Your task to perform on an android device: open app "Upside-Cash back on gas & food" (install if not already installed), go to login, and select forgot password Image 0: 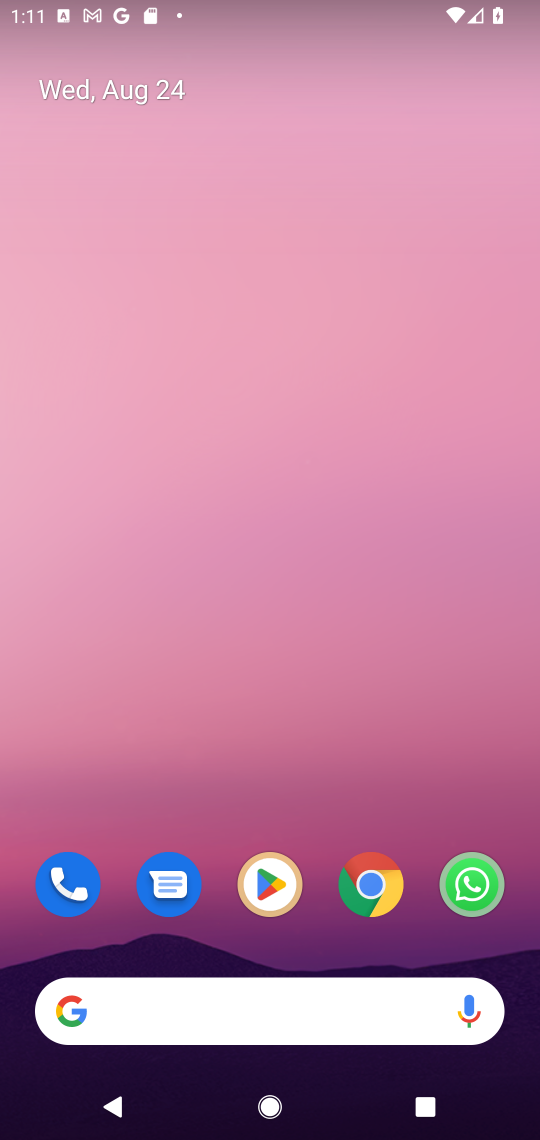
Step 0: drag from (258, 1025) to (252, 321)
Your task to perform on an android device: open app "Upside-Cash back on gas & food" (install if not already installed), go to login, and select forgot password Image 1: 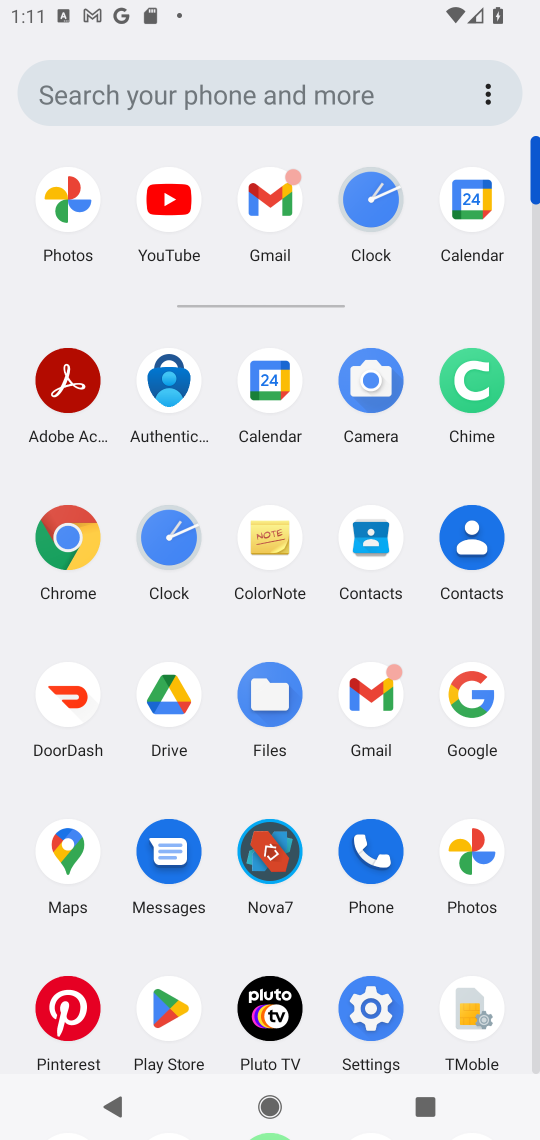
Step 1: click (172, 1004)
Your task to perform on an android device: open app "Upside-Cash back on gas & food" (install if not already installed), go to login, and select forgot password Image 2: 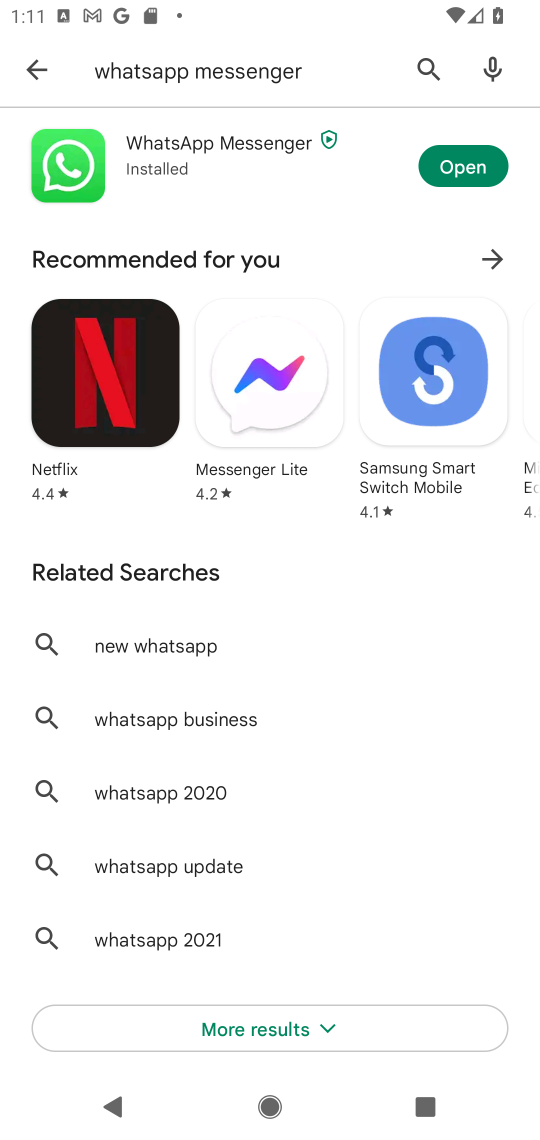
Step 2: press back button
Your task to perform on an android device: open app "Upside-Cash back on gas & food" (install if not already installed), go to login, and select forgot password Image 3: 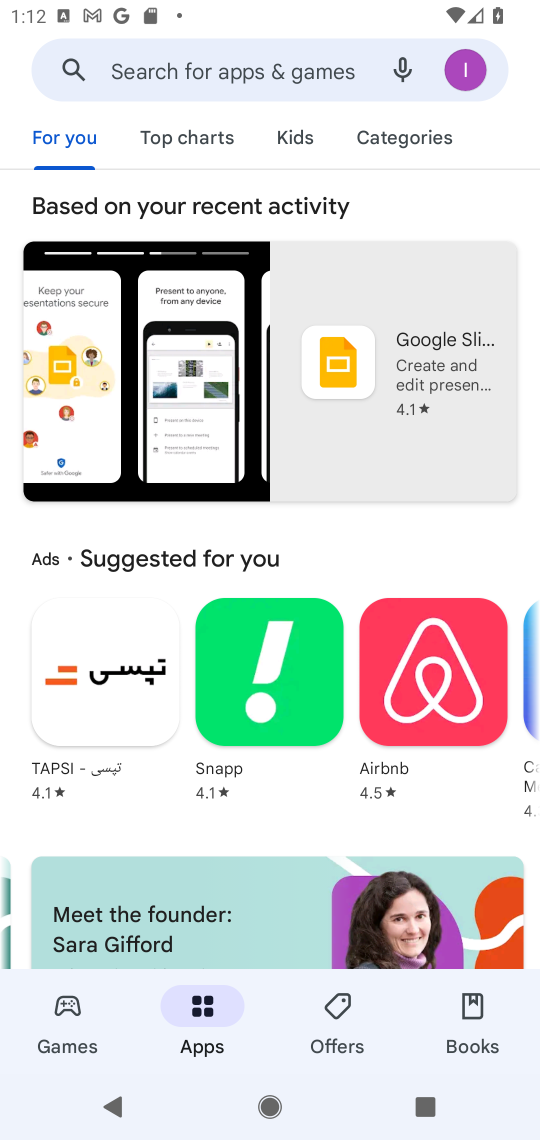
Step 3: click (305, 67)
Your task to perform on an android device: open app "Upside-Cash back on gas & food" (install if not already installed), go to login, and select forgot password Image 4: 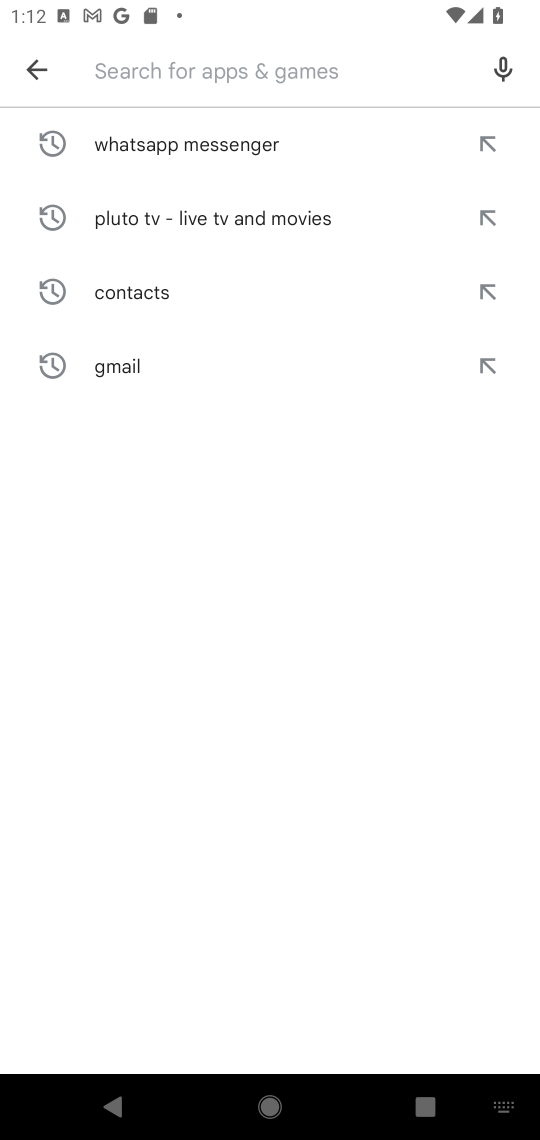
Step 4: type "Upside-Cash back on gas & food"
Your task to perform on an android device: open app "Upside-Cash back on gas & food" (install if not already installed), go to login, and select forgot password Image 5: 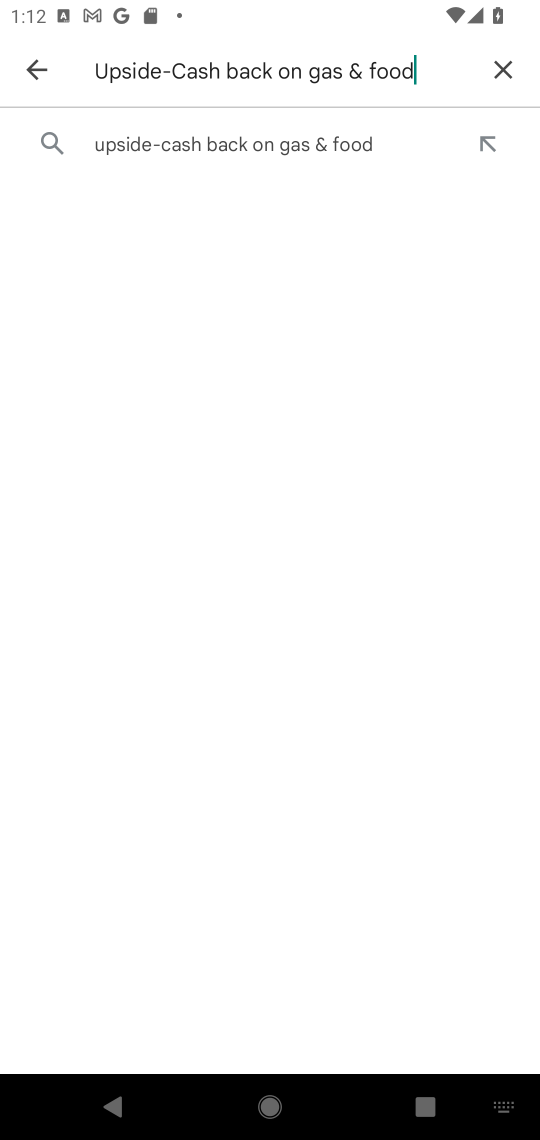
Step 5: click (317, 148)
Your task to perform on an android device: open app "Upside-Cash back on gas & food" (install if not already installed), go to login, and select forgot password Image 6: 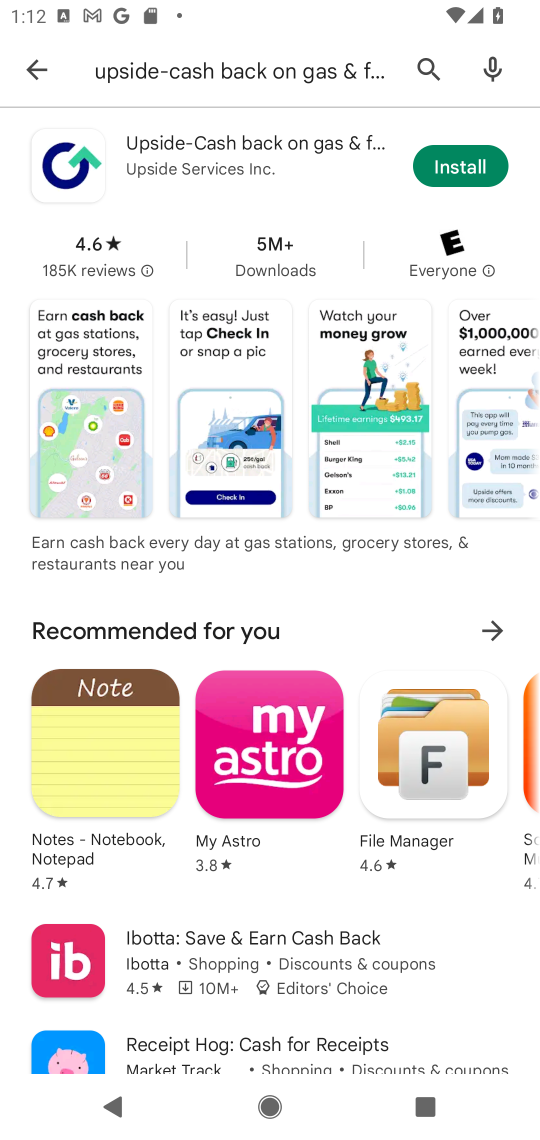
Step 6: click (462, 171)
Your task to perform on an android device: open app "Upside-Cash back on gas & food" (install if not already installed), go to login, and select forgot password Image 7: 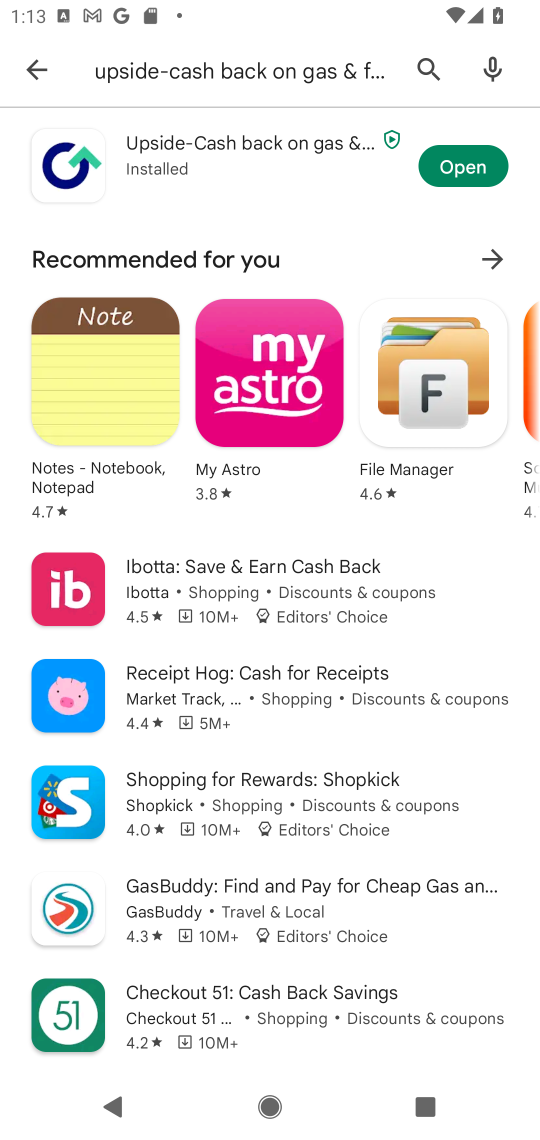
Step 7: click (463, 167)
Your task to perform on an android device: open app "Upside-Cash back on gas & food" (install if not already installed), go to login, and select forgot password Image 8: 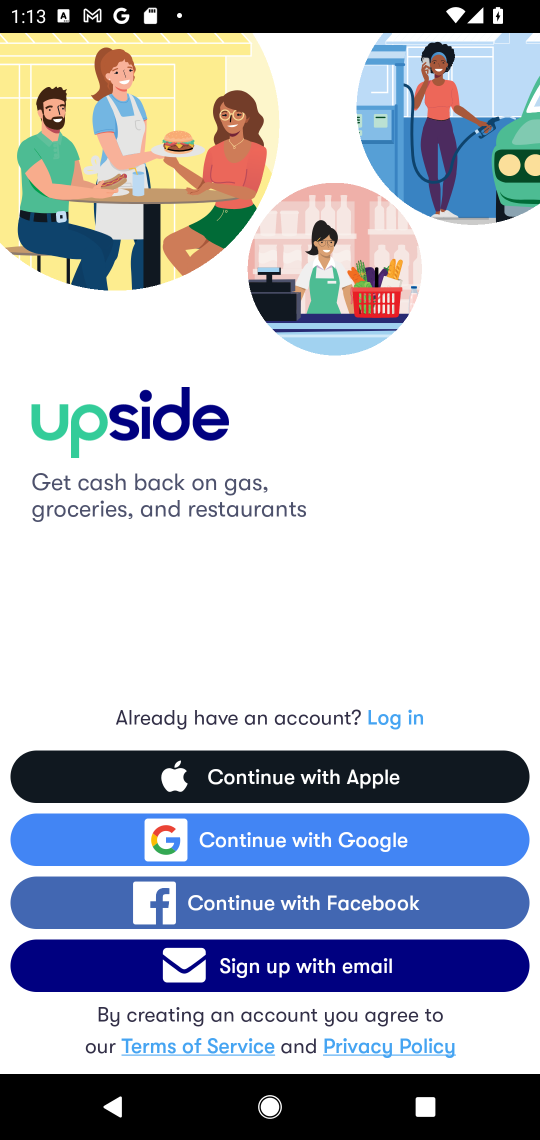
Step 8: click (300, 971)
Your task to perform on an android device: open app "Upside-Cash back on gas & food" (install if not already installed), go to login, and select forgot password Image 9: 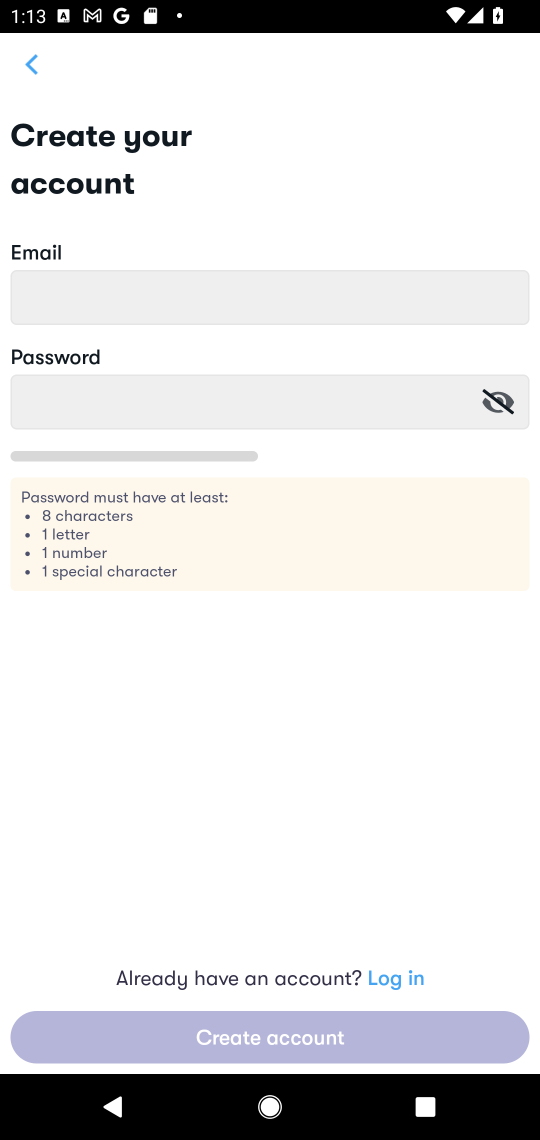
Step 9: click (172, 458)
Your task to perform on an android device: open app "Upside-Cash back on gas & food" (install if not already installed), go to login, and select forgot password Image 10: 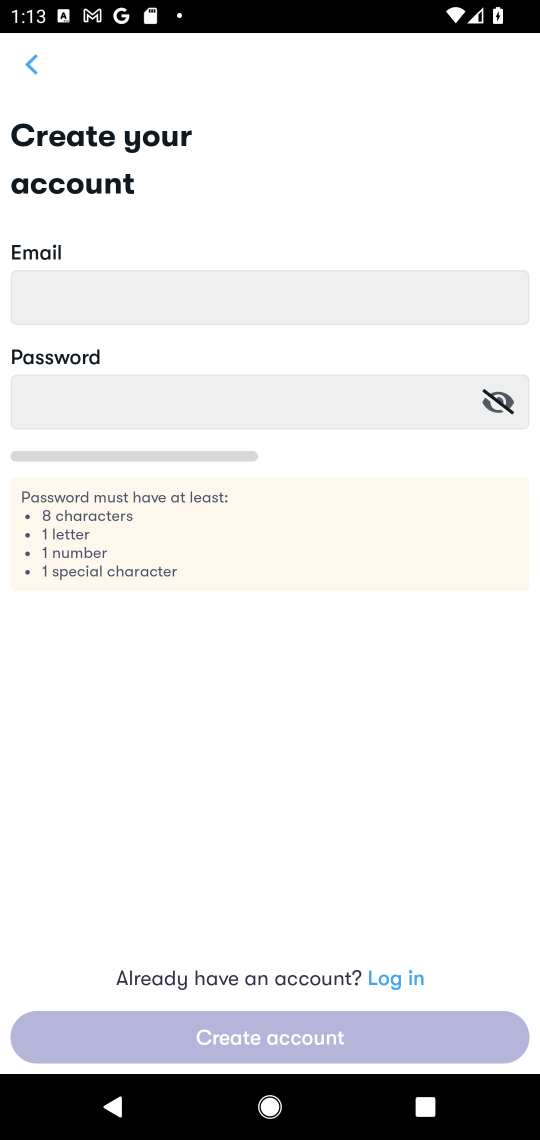
Step 10: click (172, 458)
Your task to perform on an android device: open app "Upside-Cash back on gas & food" (install if not already installed), go to login, and select forgot password Image 11: 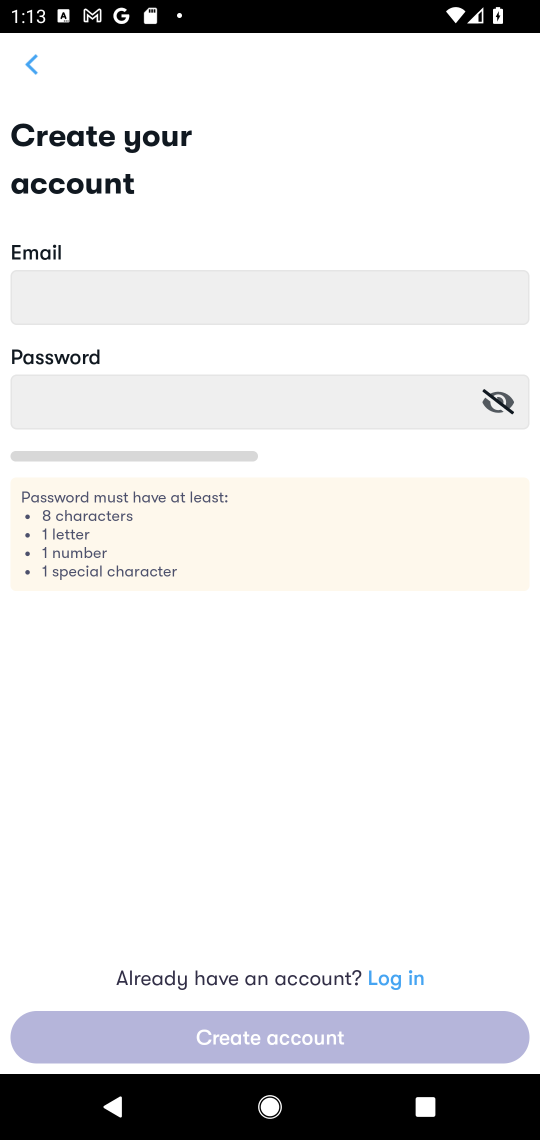
Step 11: click (172, 458)
Your task to perform on an android device: open app "Upside-Cash back on gas & food" (install if not already installed), go to login, and select forgot password Image 12: 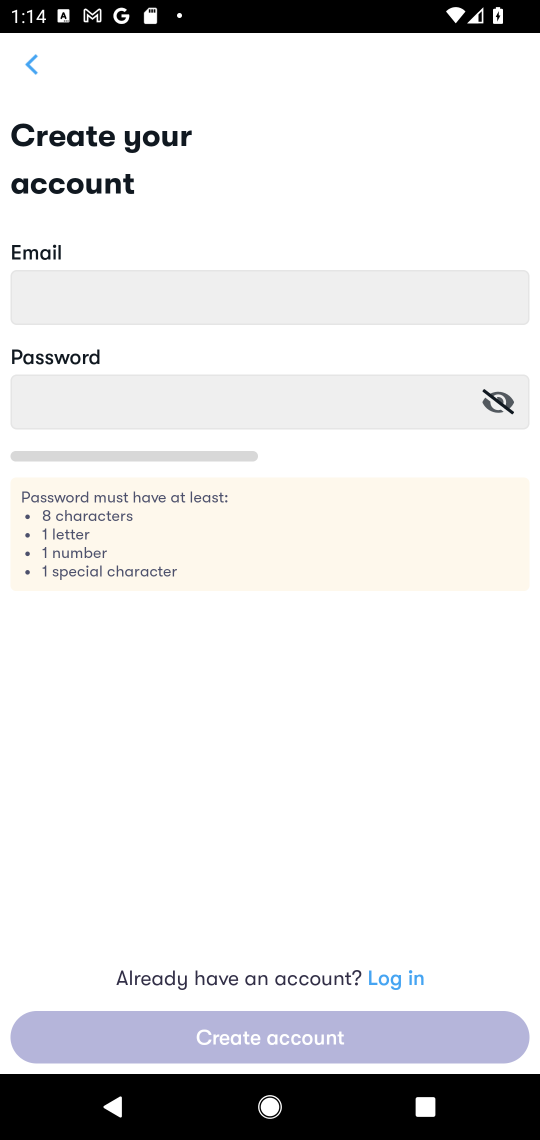
Step 12: click (388, 978)
Your task to perform on an android device: open app "Upside-Cash back on gas & food" (install if not already installed), go to login, and select forgot password Image 13: 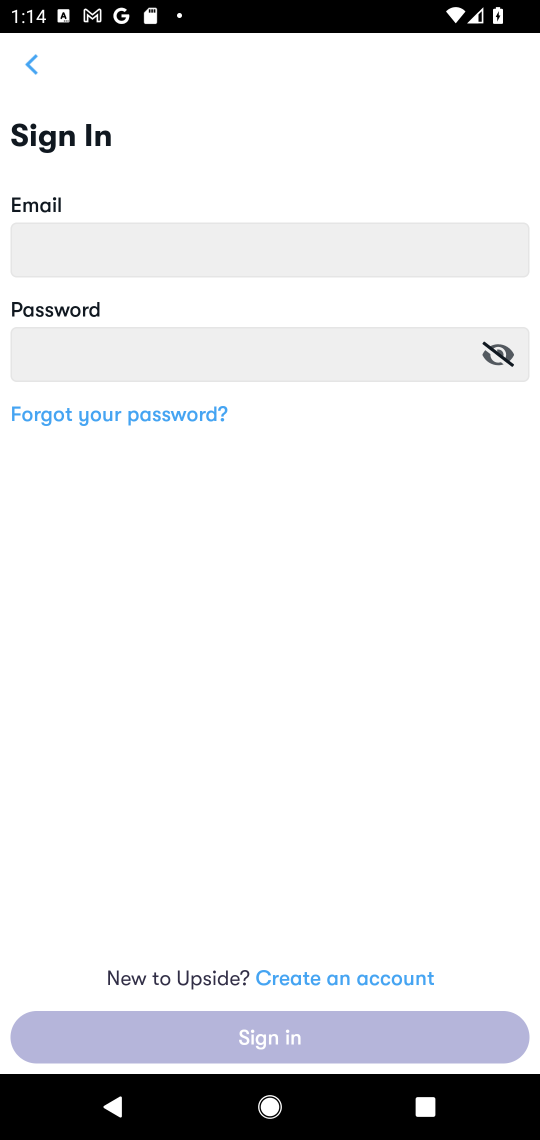
Step 13: click (211, 411)
Your task to perform on an android device: open app "Upside-Cash back on gas & food" (install if not already installed), go to login, and select forgot password Image 14: 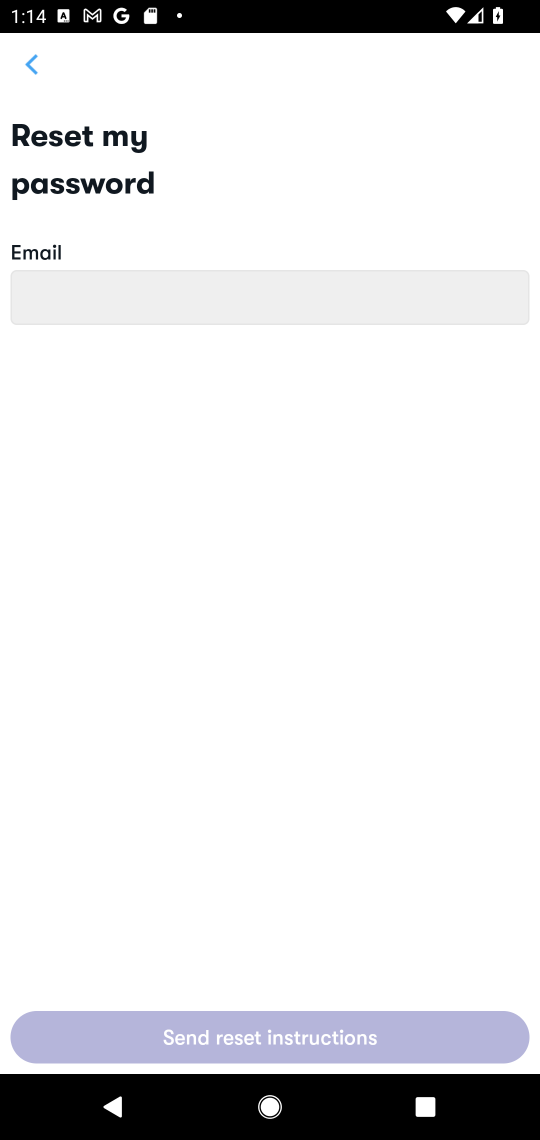
Step 14: task complete